Your task to perform on an android device: Go to display settings Image 0: 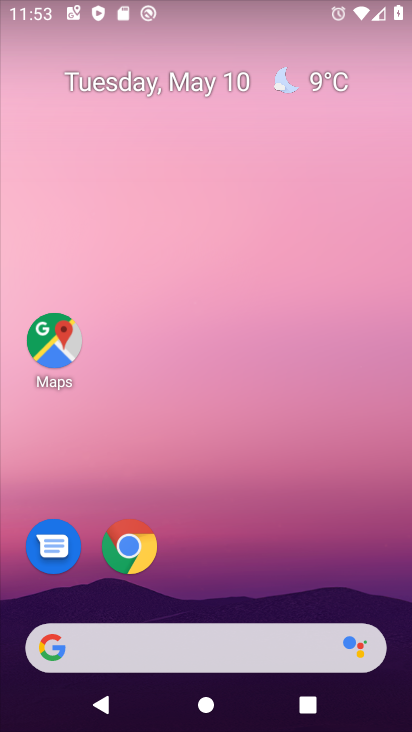
Step 0: drag from (191, 584) to (259, 188)
Your task to perform on an android device: Go to display settings Image 1: 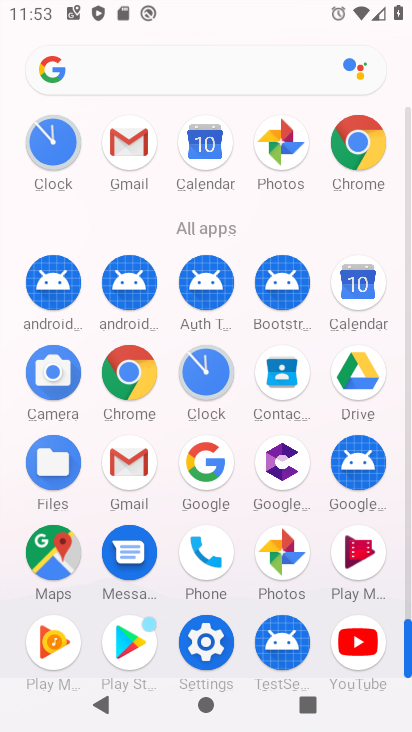
Step 1: click (208, 617)
Your task to perform on an android device: Go to display settings Image 2: 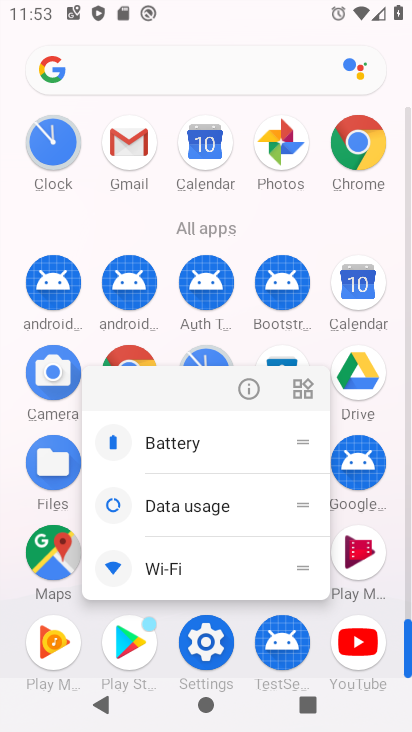
Step 2: click (244, 387)
Your task to perform on an android device: Go to display settings Image 3: 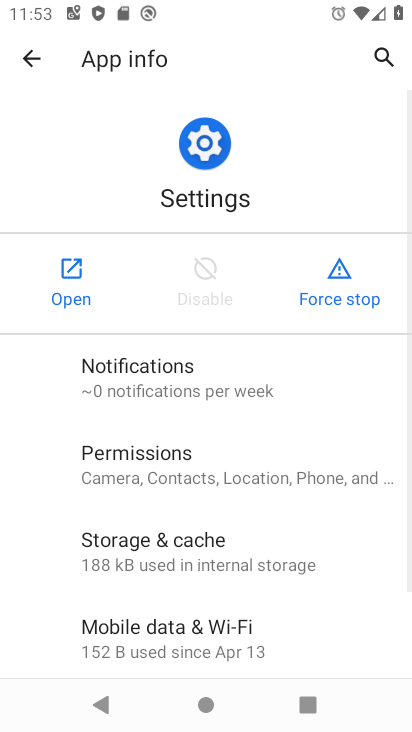
Step 3: click (62, 285)
Your task to perform on an android device: Go to display settings Image 4: 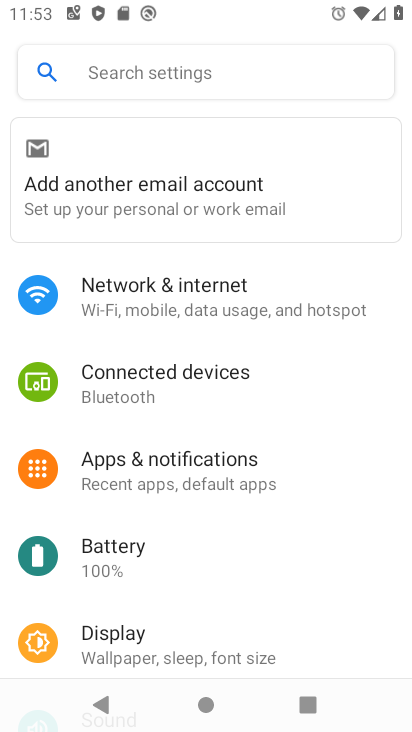
Step 4: drag from (136, 544) to (192, 371)
Your task to perform on an android device: Go to display settings Image 5: 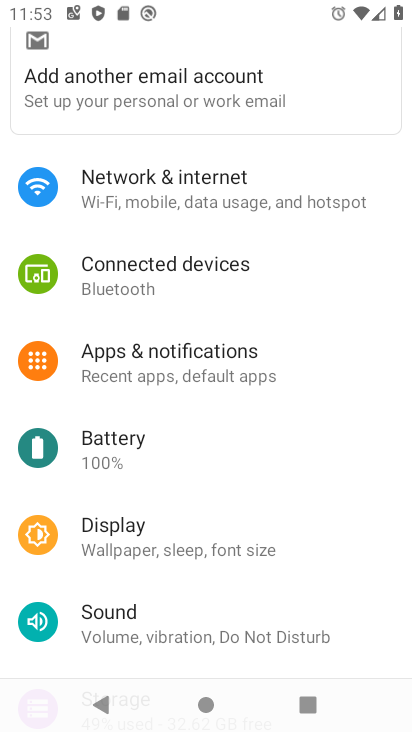
Step 5: click (162, 522)
Your task to perform on an android device: Go to display settings Image 6: 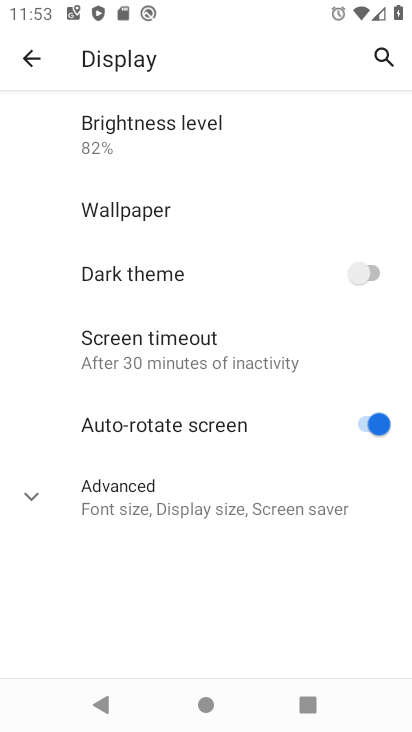
Step 6: click (269, 334)
Your task to perform on an android device: Go to display settings Image 7: 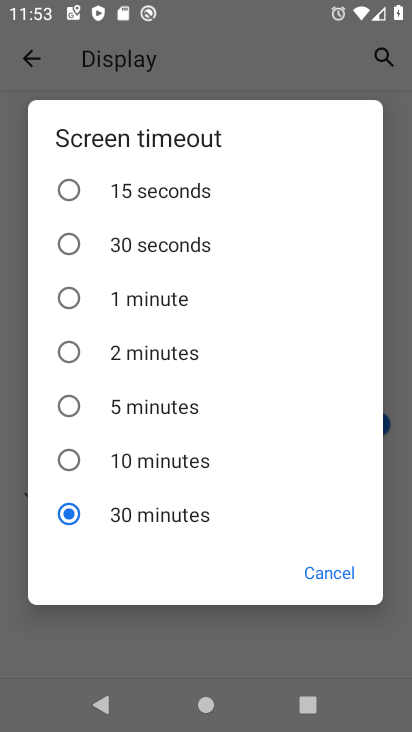
Step 7: click (309, 593)
Your task to perform on an android device: Go to display settings Image 8: 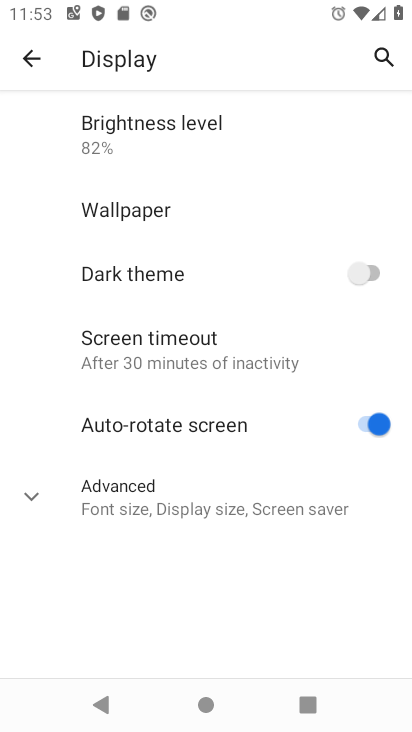
Step 8: task complete